Your task to perform on an android device: Clear the shopping cart on bestbuy. Add acer predator to the cart on bestbuy Image 0: 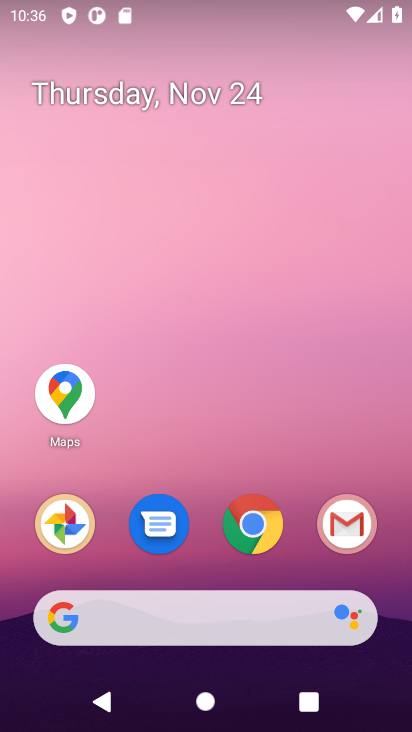
Step 0: click (253, 523)
Your task to perform on an android device: Clear the shopping cart on bestbuy. Add acer predator to the cart on bestbuy Image 1: 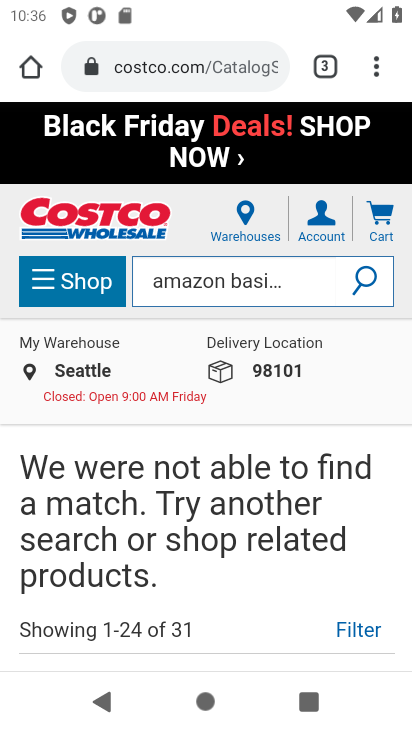
Step 1: click (167, 62)
Your task to perform on an android device: Clear the shopping cart on bestbuy. Add acer predator to the cart on bestbuy Image 2: 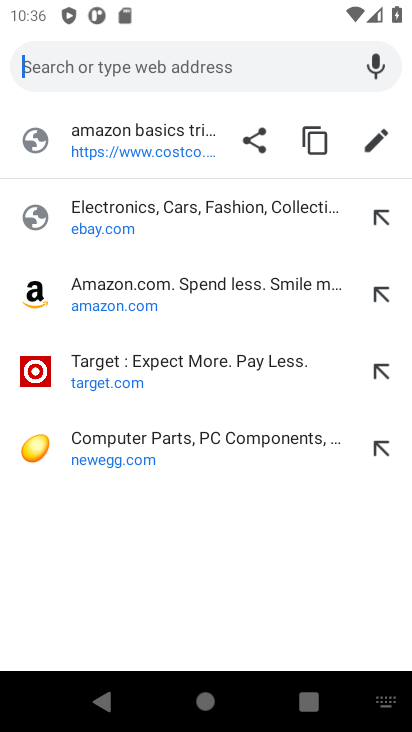
Step 2: type "bestbuy.com"
Your task to perform on an android device: Clear the shopping cart on bestbuy. Add acer predator to the cart on bestbuy Image 3: 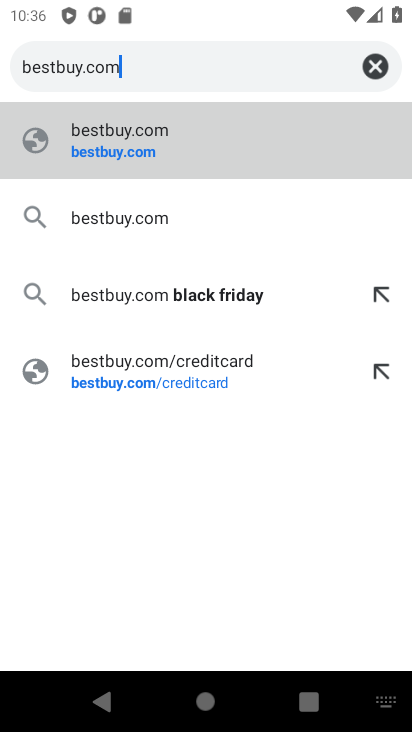
Step 3: click (102, 152)
Your task to perform on an android device: Clear the shopping cart on bestbuy. Add acer predator to the cart on bestbuy Image 4: 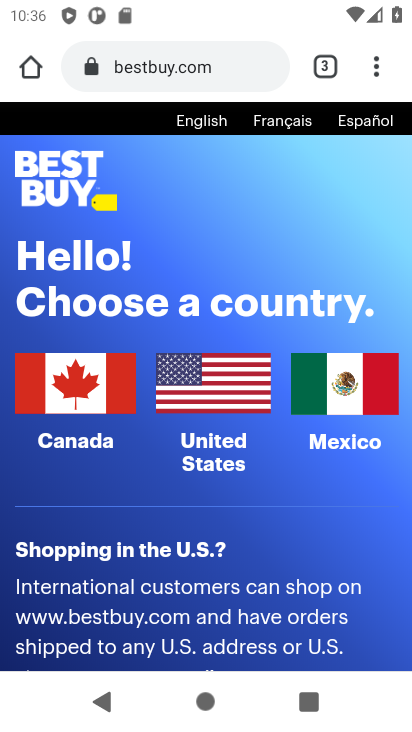
Step 4: click (215, 384)
Your task to perform on an android device: Clear the shopping cart on bestbuy. Add acer predator to the cart on bestbuy Image 5: 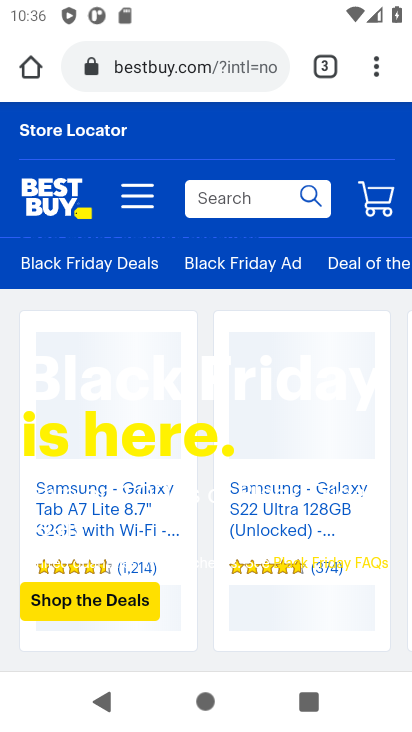
Step 5: click (377, 196)
Your task to perform on an android device: Clear the shopping cart on bestbuy. Add acer predator to the cart on bestbuy Image 6: 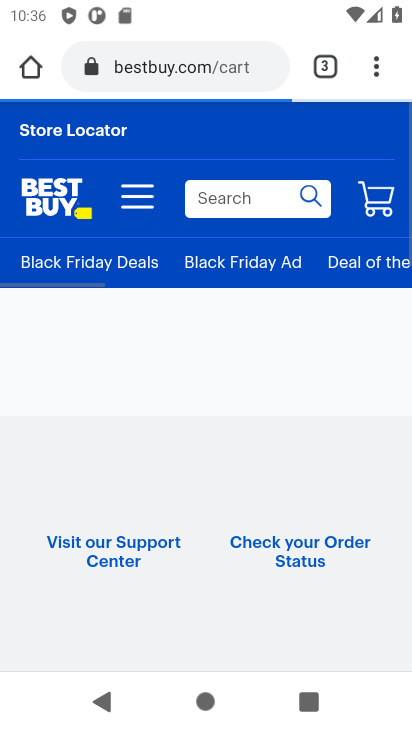
Step 6: click (373, 203)
Your task to perform on an android device: Clear the shopping cart on bestbuy. Add acer predator to the cart on bestbuy Image 7: 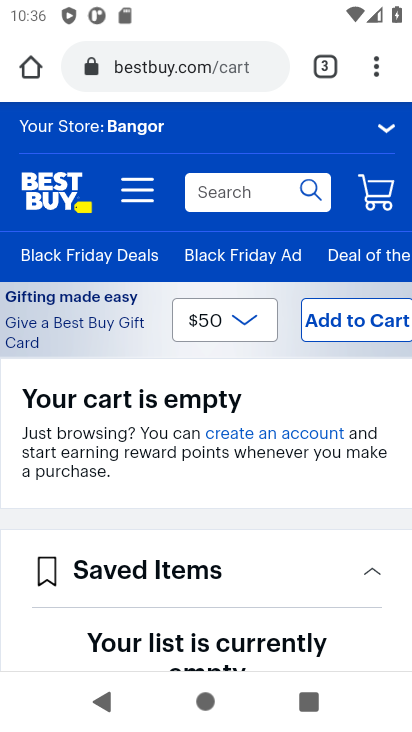
Step 7: click (204, 202)
Your task to perform on an android device: Clear the shopping cart on bestbuy. Add acer predator to the cart on bestbuy Image 8: 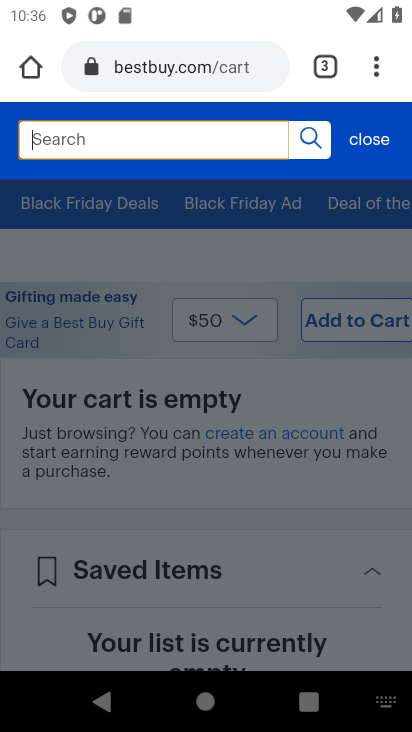
Step 8: type "acer predator"
Your task to perform on an android device: Clear the shopping cart on bestbuy. Add acer predator to the cart on bestbuy Image 9: 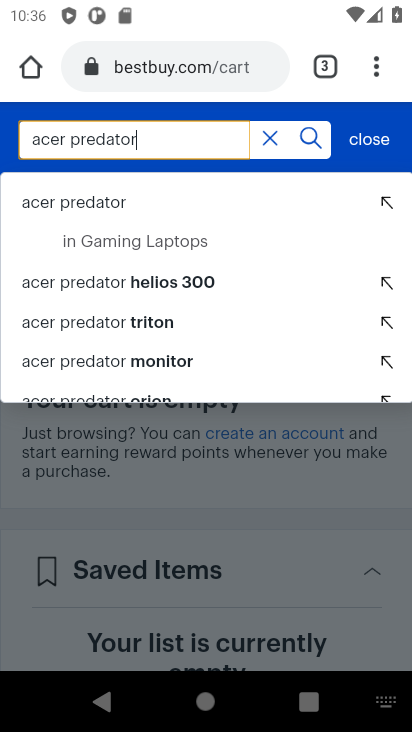
Step 9: click (54, 204)
Your task to perform on an android device: Clear the shopping cart on bestbuy. Add acer predator to the cart on bestbuy Image 10: 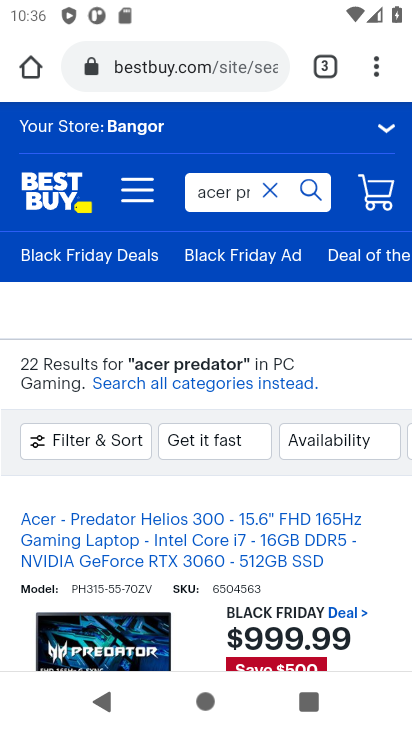
Step 10: drag from (157, 464) to (154, 269)
Your task to perform on an android device: Clear the shopping cart on bestbuy. Add acer predator to the cart on bestbuy Image 11: 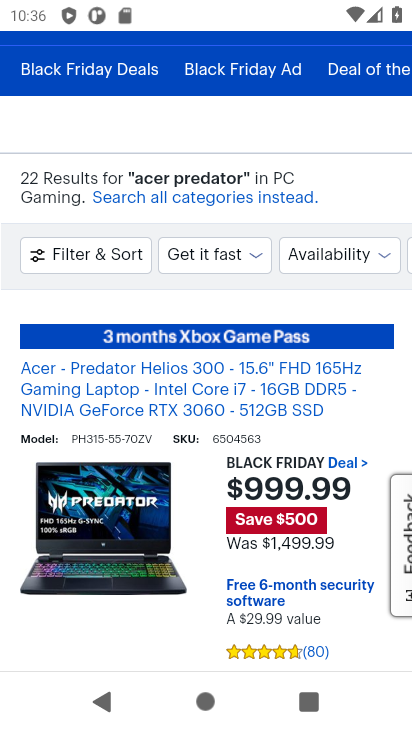
Step 11: drag from (119, 463) to (129, 297)
Your task to perform on an android device: Clear the shopping cart on bestbuy. Add acer predator to the cart on bestbuy Image 12: 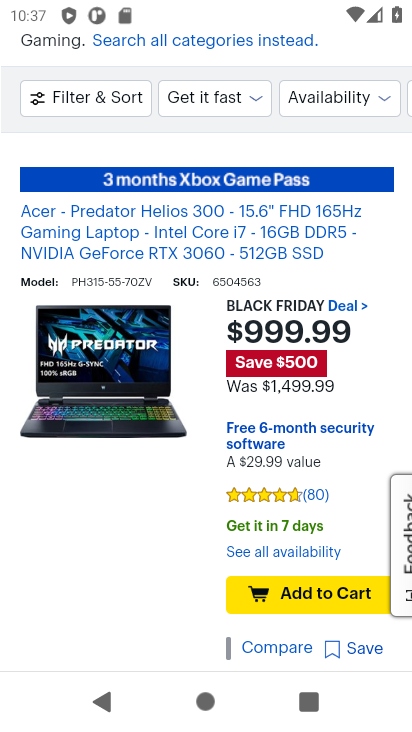
Step 12: click (279, 592)
Your task to perform on an android device: Clear the shopping cart on bestbuy. Add acer predator to the cart on bestbuy Image 13: 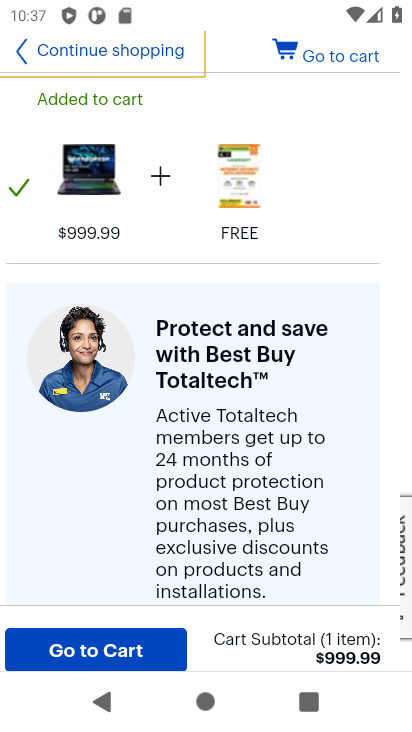
Step 13: task complete